Your task to perform on an android device: turn notification dots on Image 0: 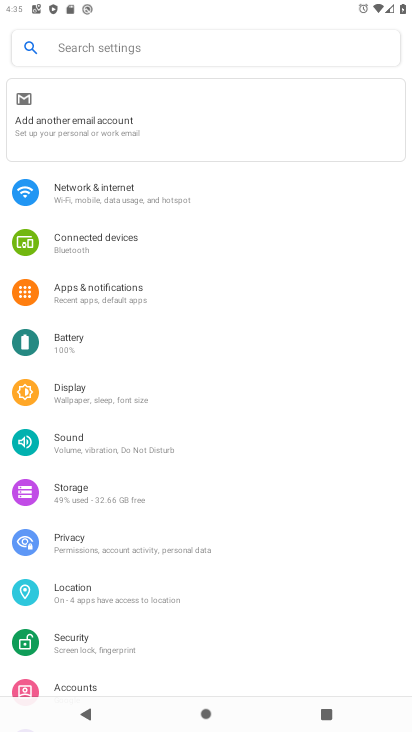
Step 0: click (79, 289)
Your task to perform on an android device: turn notification dots on Image 1: 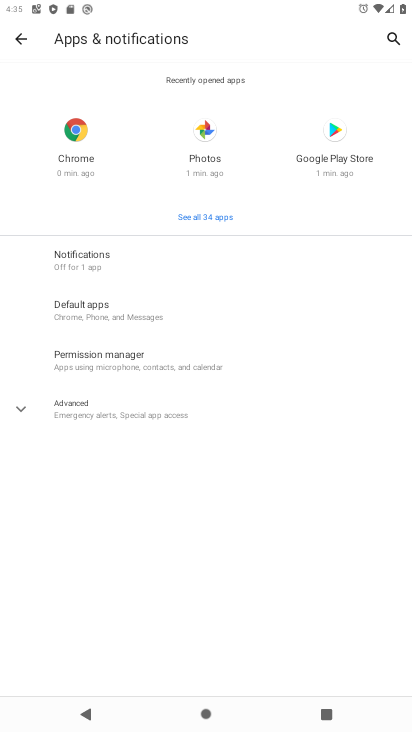
Step 1: click (107, 249)
Your task to perform on an android device: turn notification dots on Image 2: 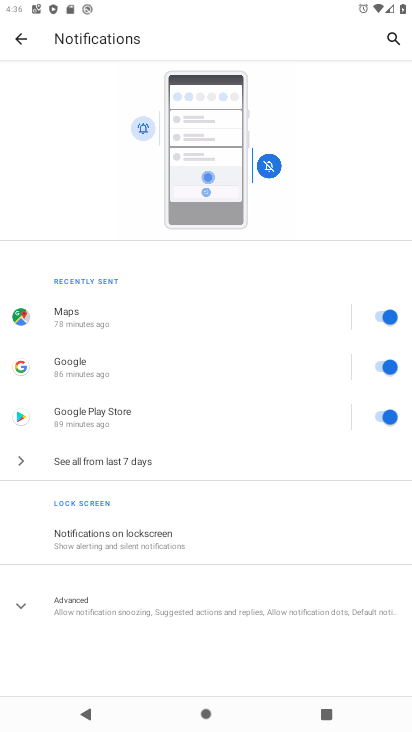
Step 2: click (123, 595)
Your task to perform on an android device: turn notification dots on Image 3: 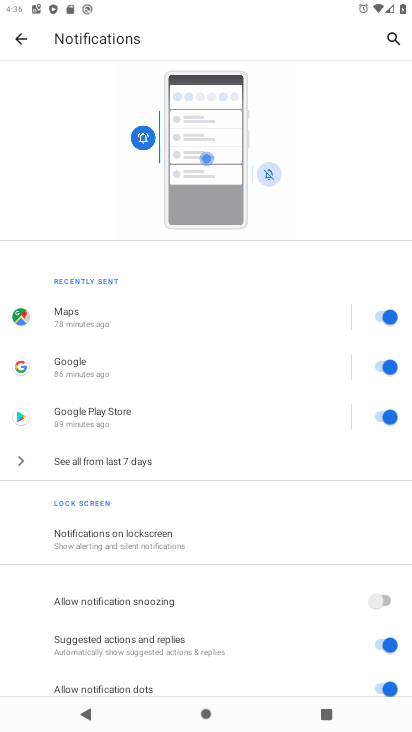
Step 3: task complete